Your task to perform on an android device: add a contact Image 0: 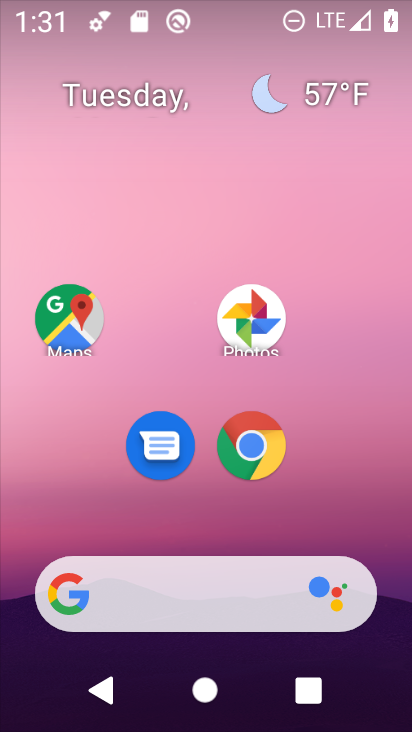
Step 0: drag from (365, 520) to (372, 152)
Your task to perform on an android device: add a contact Image 1: 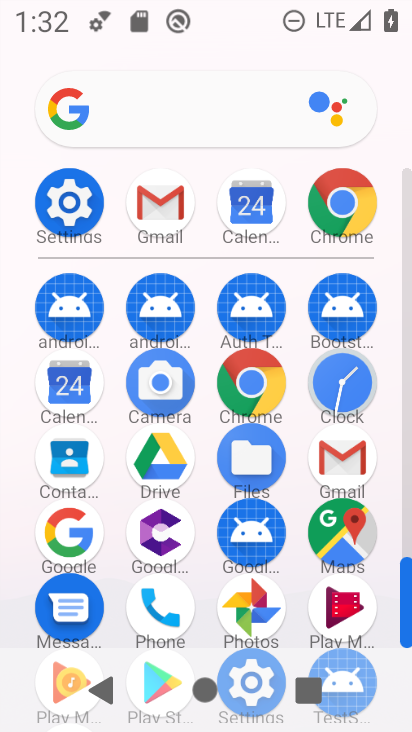
Step 1: click (69, 480)
Your task to perform on an android device: add a contact Image 2: 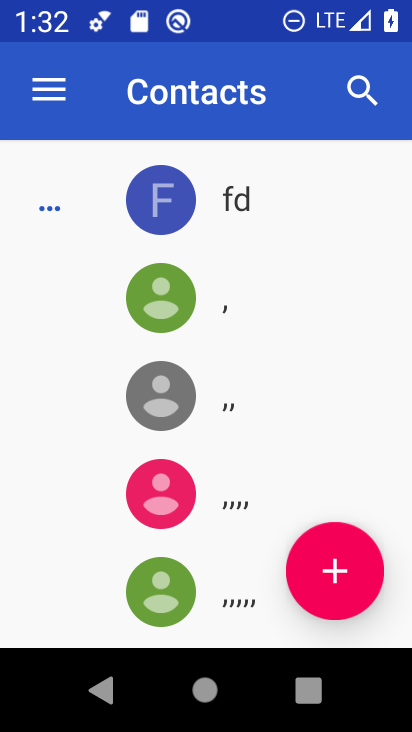
Step 2: click (368, 578)
Your task to perform on an android device: add a contact Image 3: 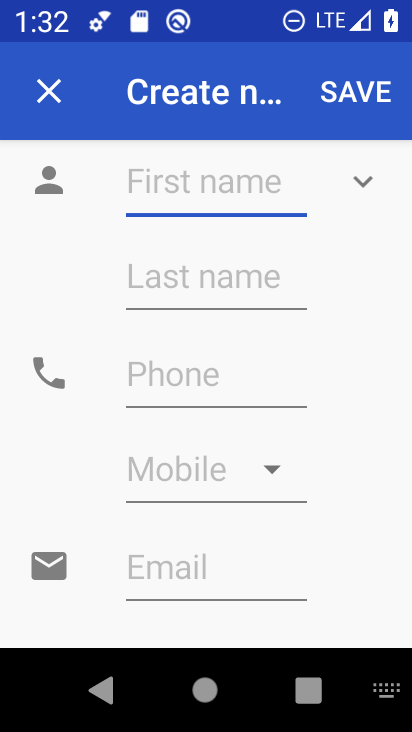
Step 3: type "maaan"
Your task to perform on an android device: add a contact Image 4: 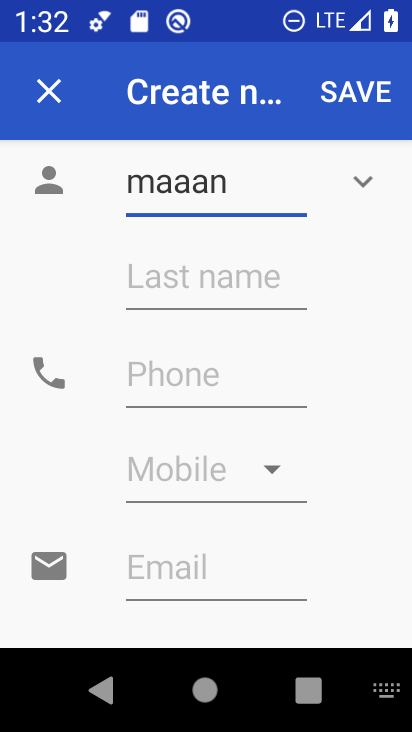
Step 4: click (213, 382)
Your task to perform on an android device: add a contact Image 5: 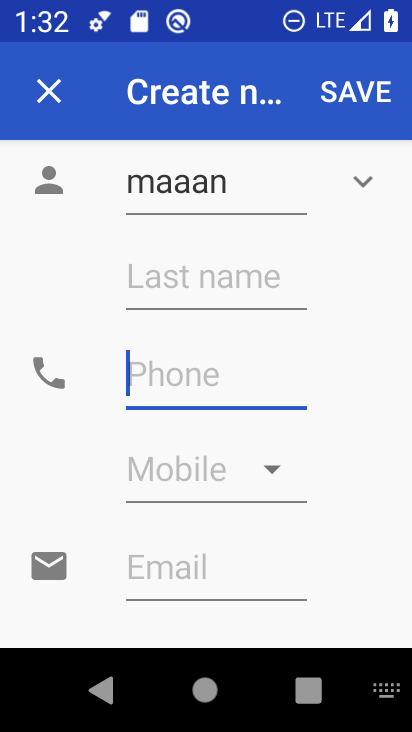
Step 5: type "123456789"
Your task to perform on an android device: add a contact Image 6: 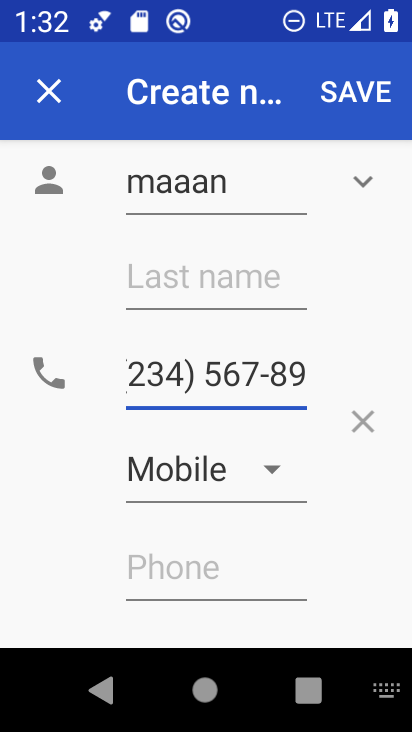
Step 6: click (381, 77)
Your task to perform on an android device: add a contact Image 7: 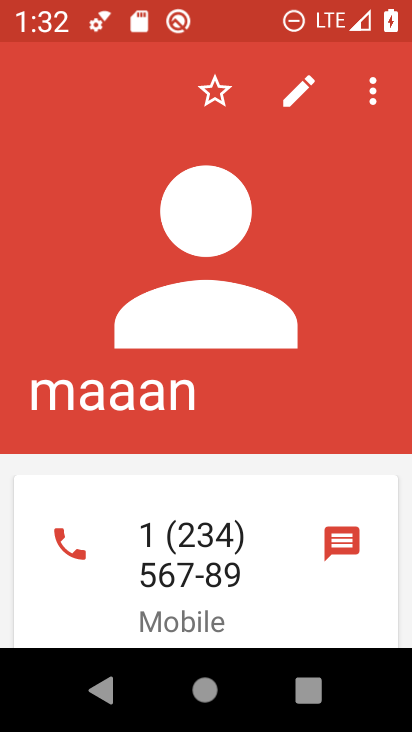
Step 7: task complete